Your task to perform on an android device: Open the stopwatch Image 0: 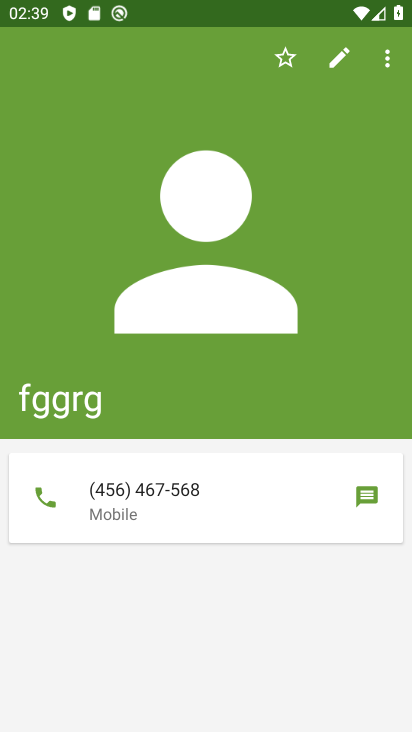
Step 0: press home button
Your task to perform on an android device: Open the stopwatch Image 1: 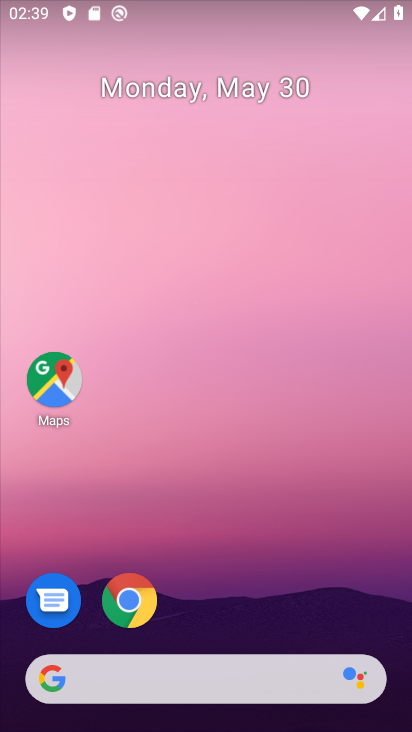
Step 1: drag from (227, 617) to (256, 172)
Your task to perform on an android device: Open the stopwatch Image 2: 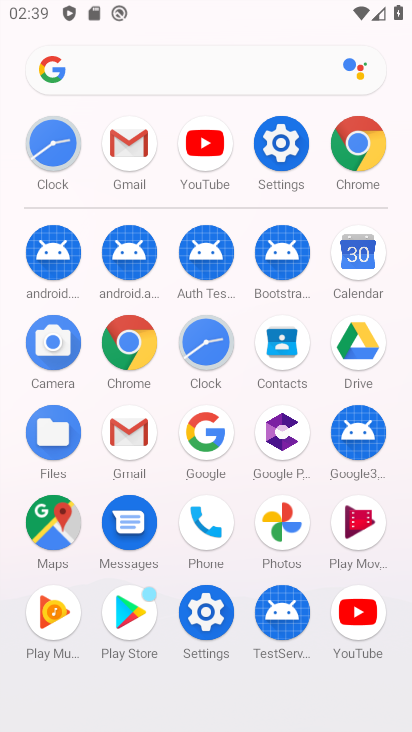
Step 2: click (56, 149)
Your task to perform on an android device: Open the stopwatch Image 3: 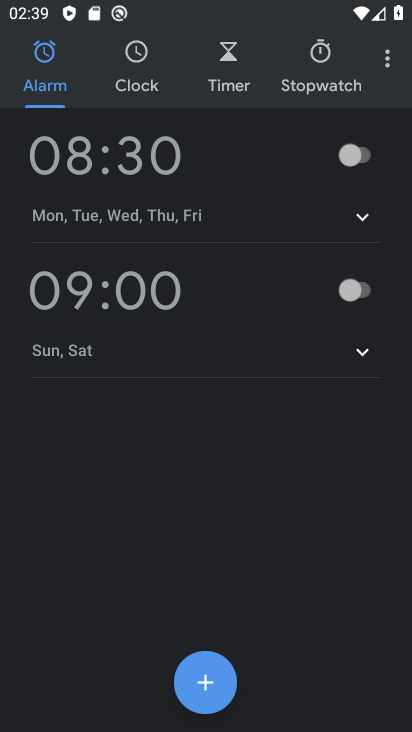
Step 3: click (325, 52)
Your task to perform on an android device: Open the stopwatch Image 4: 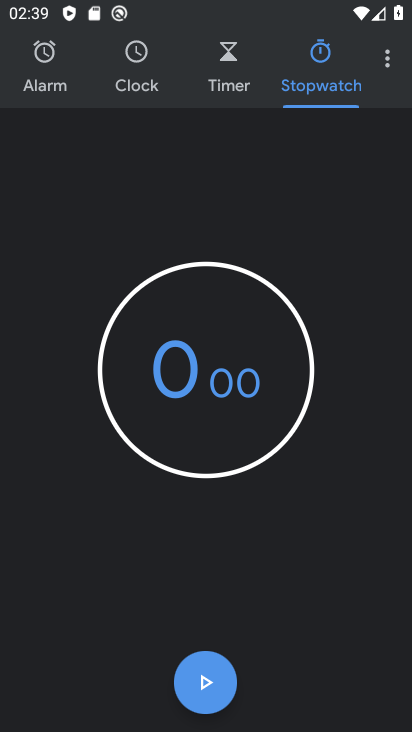
Step 4: click (204, 681)
Your task to perform on an android device: Open the stopwatch Image 5: 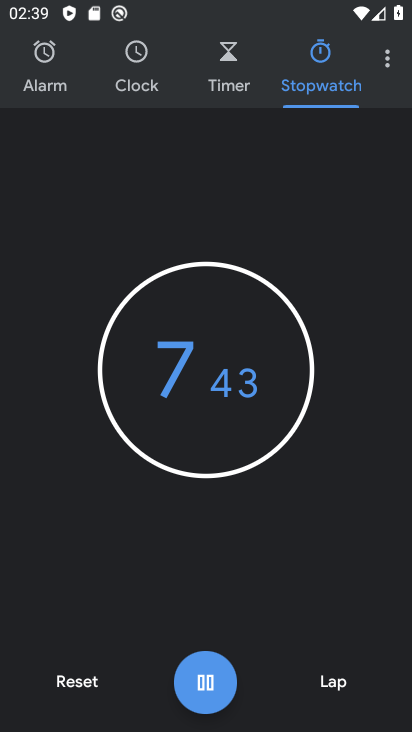
Step 5: task complete